Your task to perform on an android device: stop showing notifications on the lock screen Image 0: 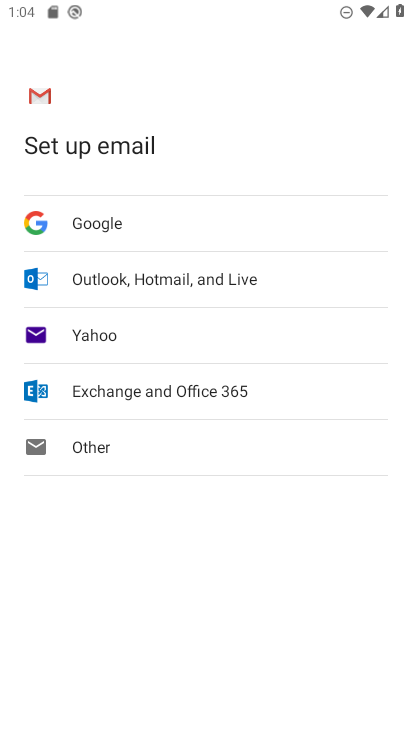
Step 0: press home button
Your task to perform on an android device: stop showing notifications on the lock screen Image 1: 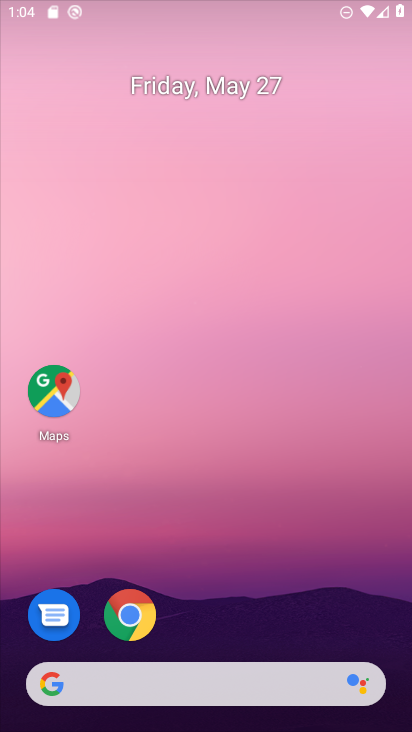
Step 1: drag from (221, 608) to (214, 197)
Your task to perform on an android device: stop showing notifications on the lock screen Image 2: 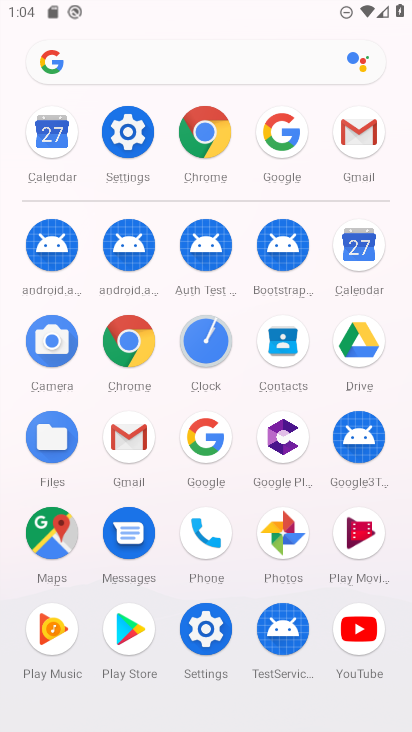
Step 2: click (210, 624)
Your task to perform on an android device: stop showing notifications on the lock screen Image 3: 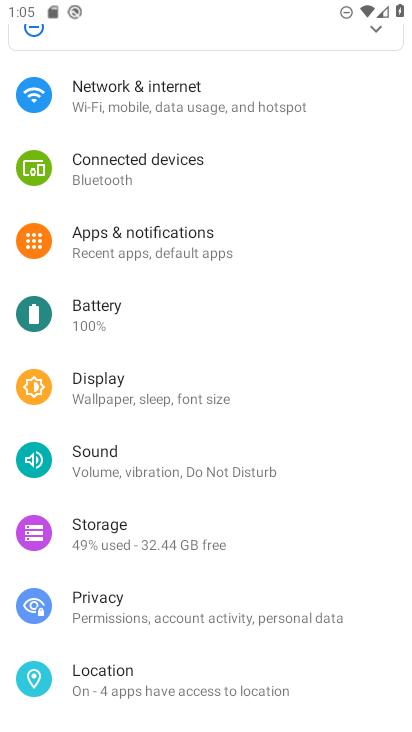
Step 3: drag from (154, 586) to (161, 260)
Your task to perform on an android device: stop showing notifications on the lock screen Image 4: 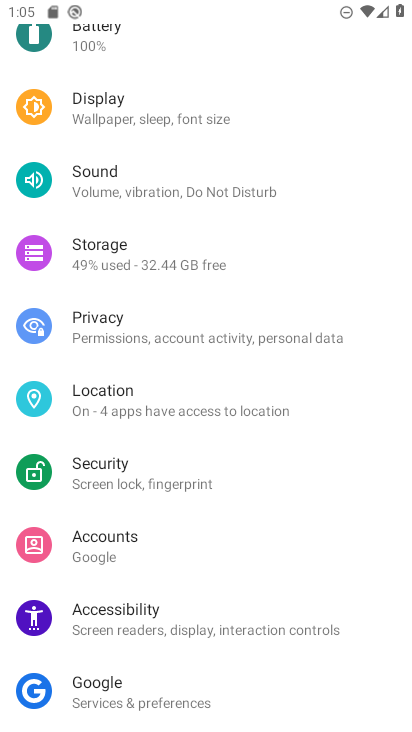
Step 4: drag from (168, 182) to (254, 664)
Your task to perform on an android device: stop showing notifications on the lock screen Image 5: 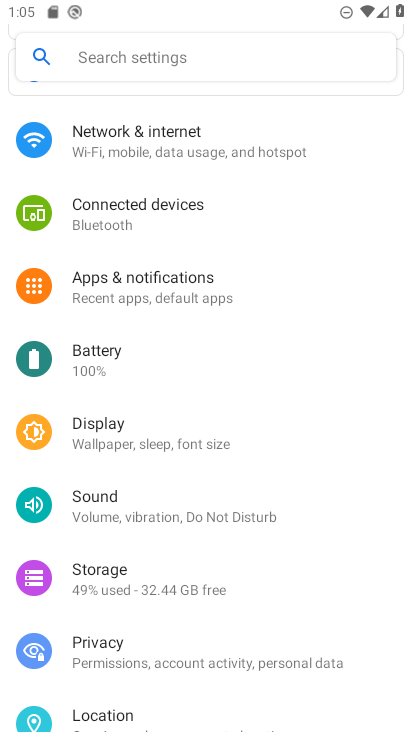
Step 5: click (195, 296)
Your task to perform on an android device: stop showing notifications on the lock screen Image 6: 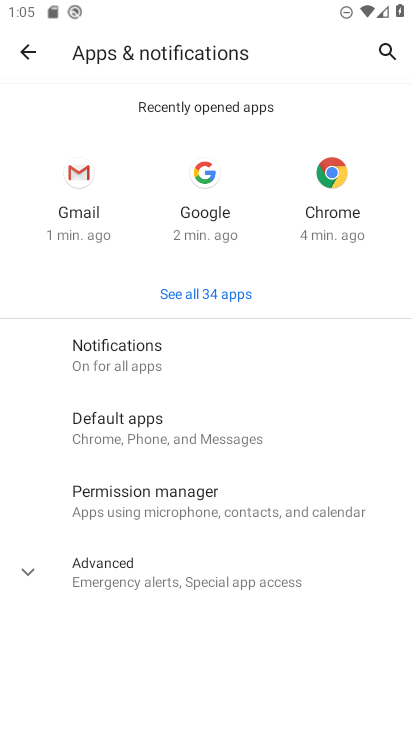
Step 6: click (174, 352)
Your task to perform on an android device: stop showing notifications on the lock screen Image 7: 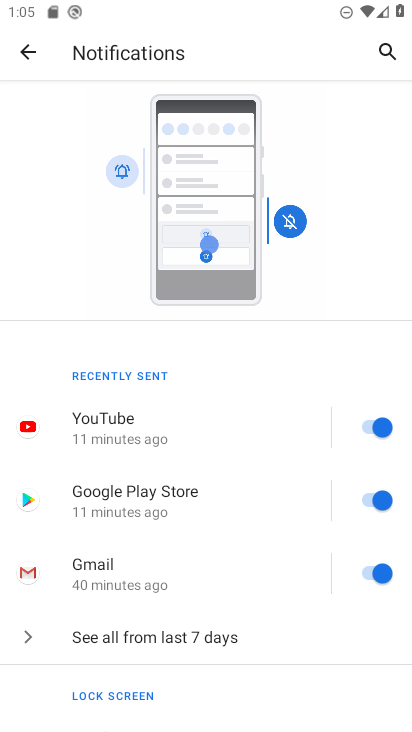
Step 7: drag from (136, 642) to (178, 345)
Your task to perform on an android device: stop showing notifications on the lock screen Image 8: 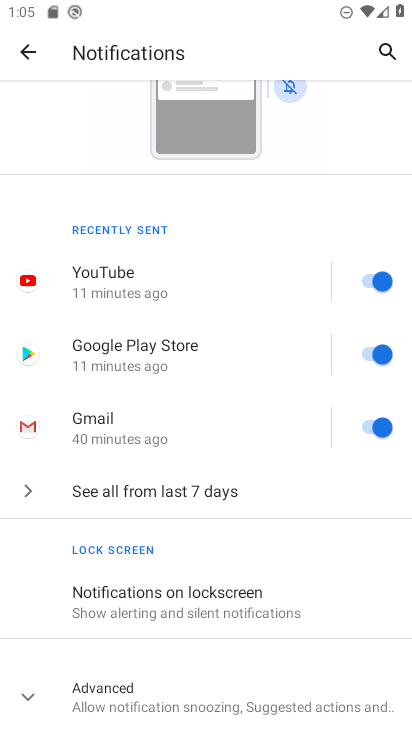
Step 8: click (180, 603)
Your task to perform on an android device: stop showing notifications on the lock screen Image 9: 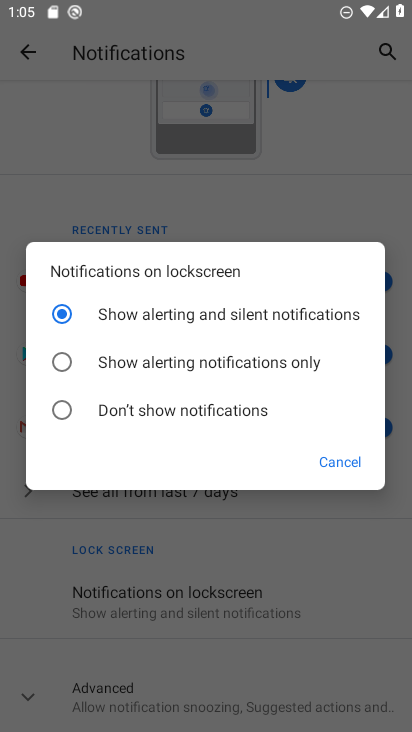
Step 9: click (191, 421)
Your task to perform on an android device: stop showing notifications on the lock screen Image 10: 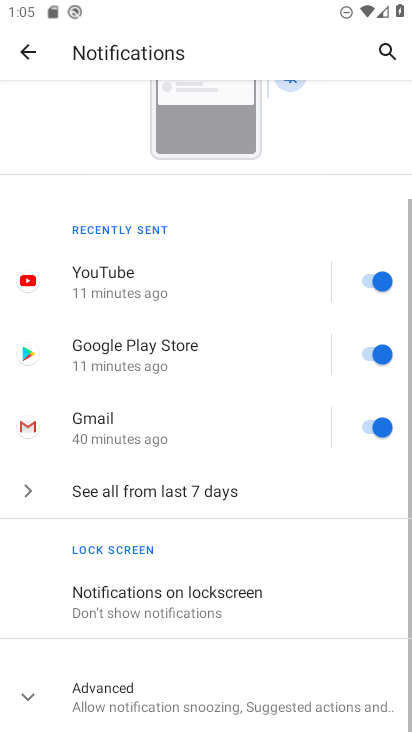
Step 10: task complete